Your task to perform on an android device: set an alarm Image 0: 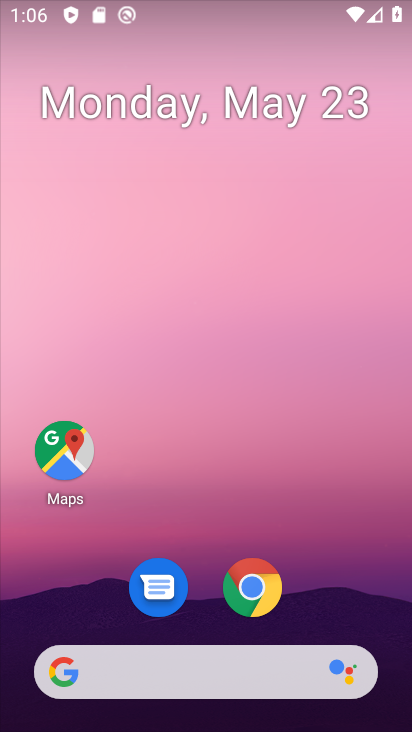
Step 0: drag from (385, 585) to (211, 75)
Your task to perform on an android device: set an alarm Image 1: 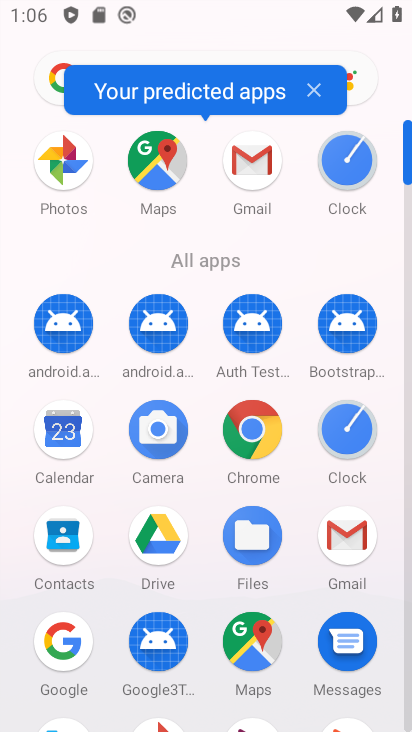
Step 1: click (340, 192)
Your task to perform on an android device: set an alarm Image 2: 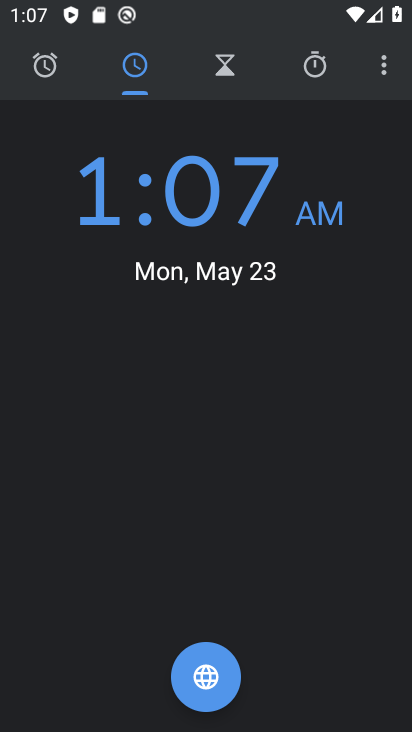
Step 2: click (55, 45)
Your task to perform on an android device: set an alarm Image 3: 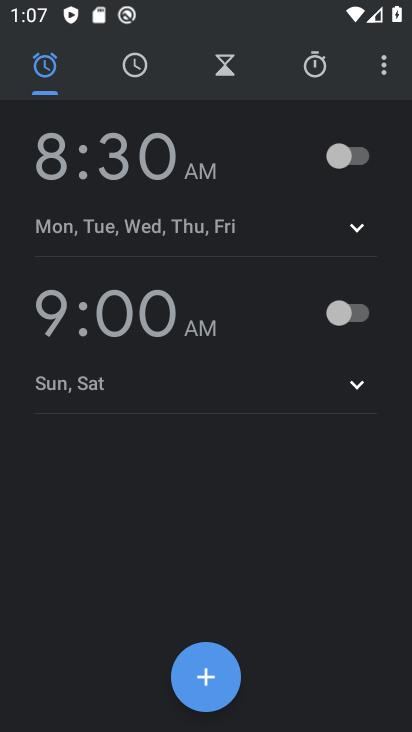
Step 3: click (328, 184)
Your task to perform on an android device: set an alarm Image 4: 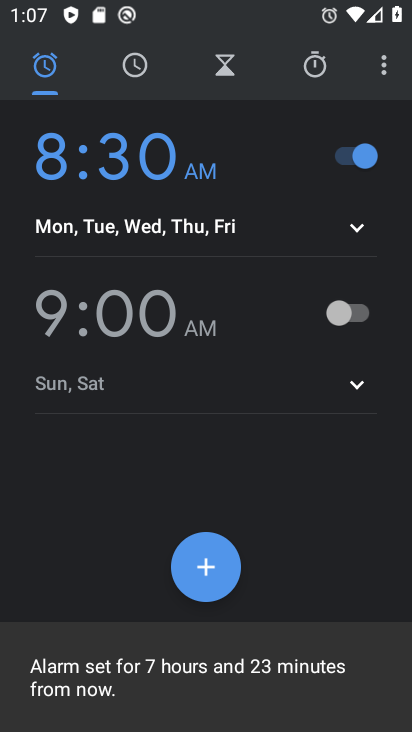
Step 4: task complete